Your task to perform on an android device: open app "Viber Messenger" Image 0: 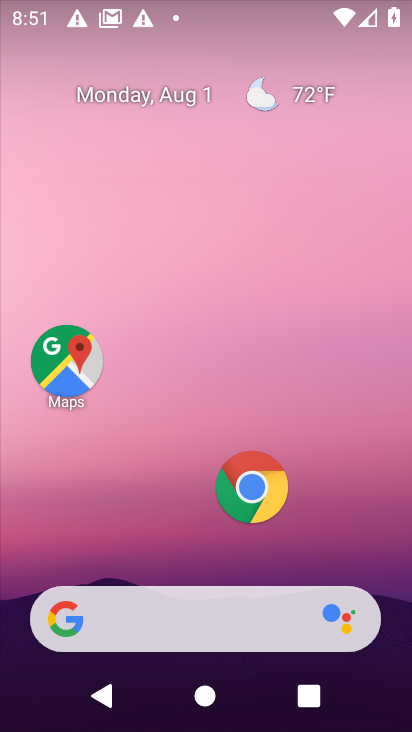
Step 0: drag from (166, 180) to (166, 69)
Your task to perform on an android device: open app "Viber Messenger" Image 1: 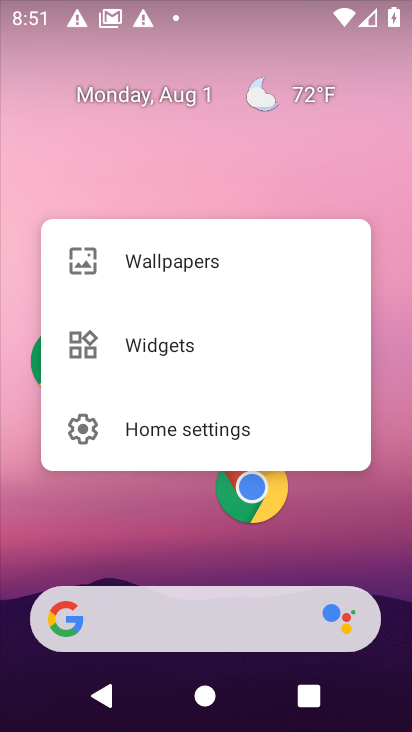
Step 1: drag from (176, 439) to (227, 95)
Your task to perform on an android device: open app "Viber Messenger" Image 2: 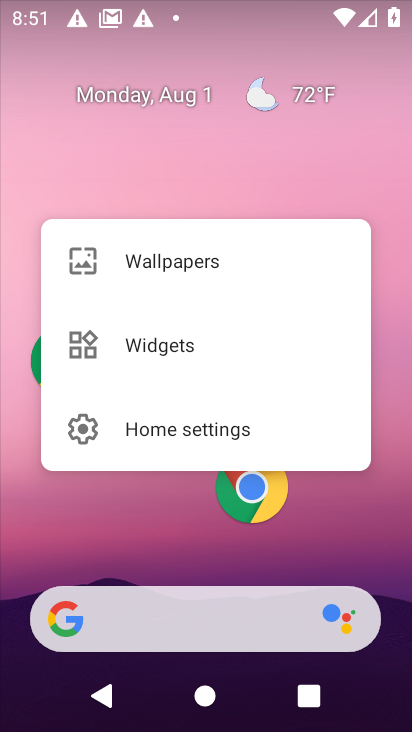
Step 2: click (177, 566)
Your task to perform on an android device: open app "Viber Messenger" Image 3: 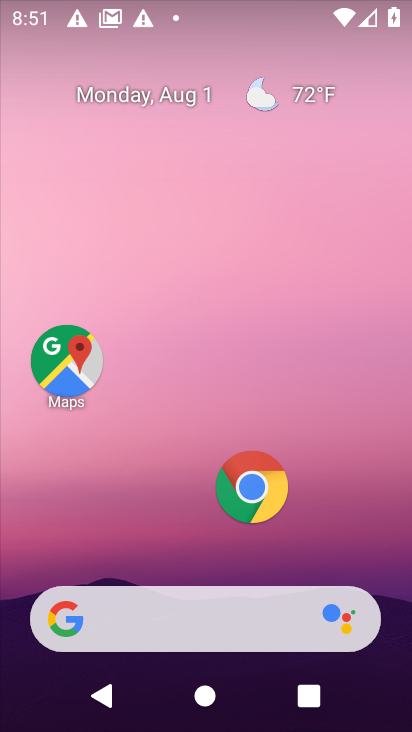
Step 3: drag from (174, 500) to (204, 74)
Your task to perform on an android device: open app "Viber Messenger" Image 4: 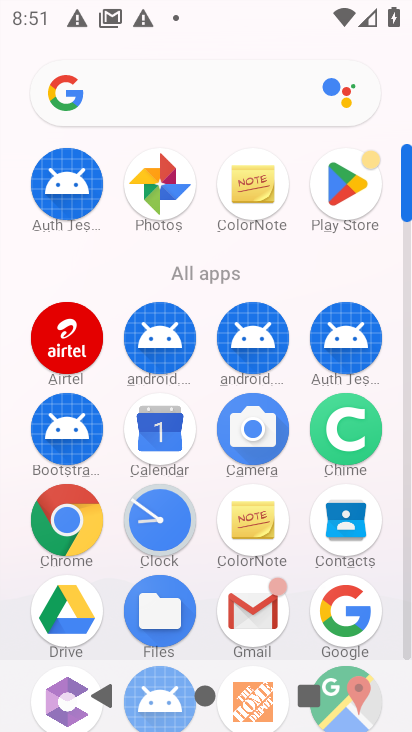
Step 4: click (345, 192)
Your task to perform on an android device: open app "Viber Messenger" Image 5: 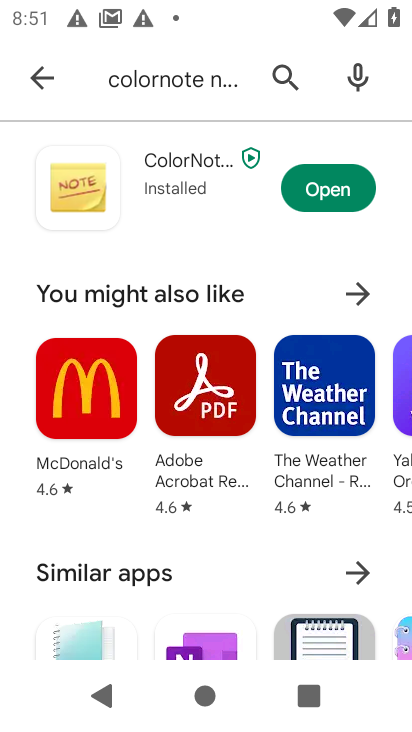
Step 5: click (45, 80)
Your task to perform on an android device: open app "Viber Messenger" Image 6: 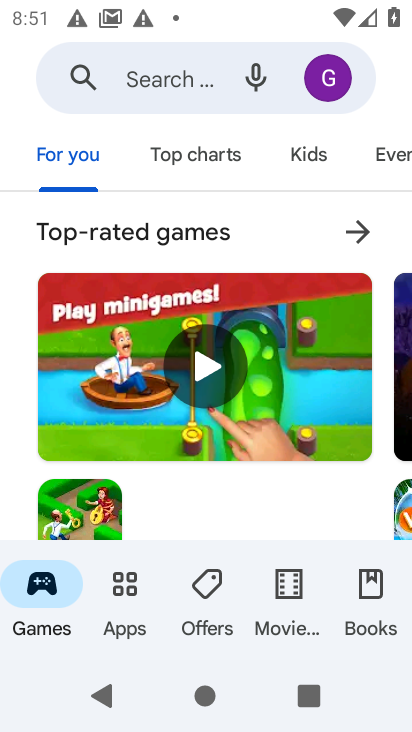
Step 6: click (185, 81)
Your task to perform on an android device: open app "Viber Messenger" Image 7: 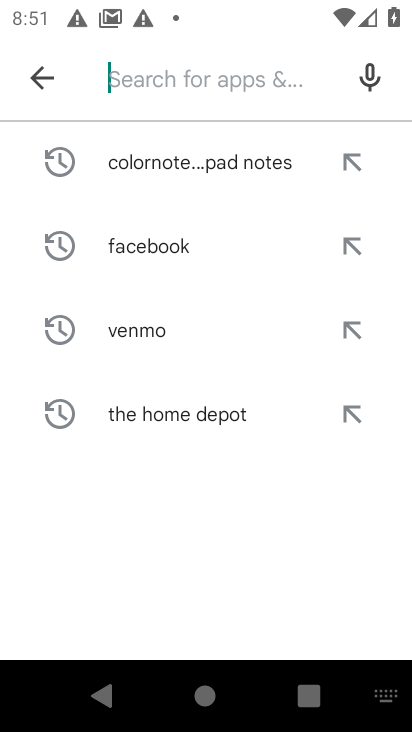
Step 7: type "Viber Messenger"
Your task to perform on an android device: open app "Viber Messenger" Image 8: 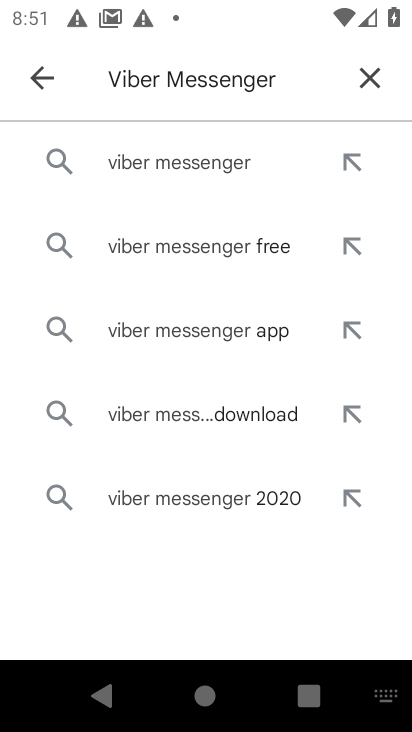
Step 8: click (168, 164)
Your task to perform on an android device: open app "Viber Messenger" Image 9: 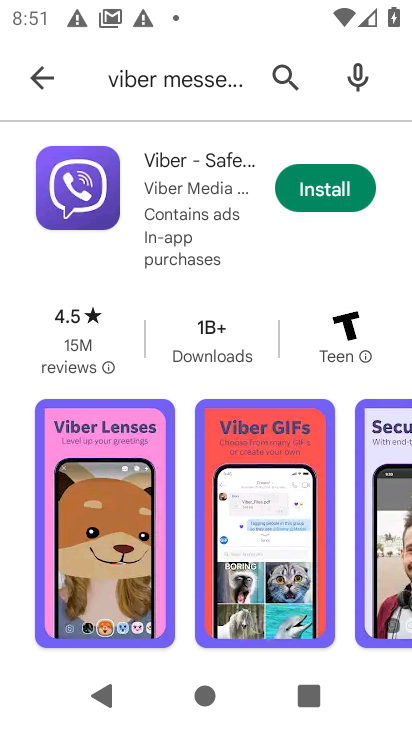
Step 9: click (322, 195)
Your task to perform on an android device: open app "Viber Messenger" Image 10: 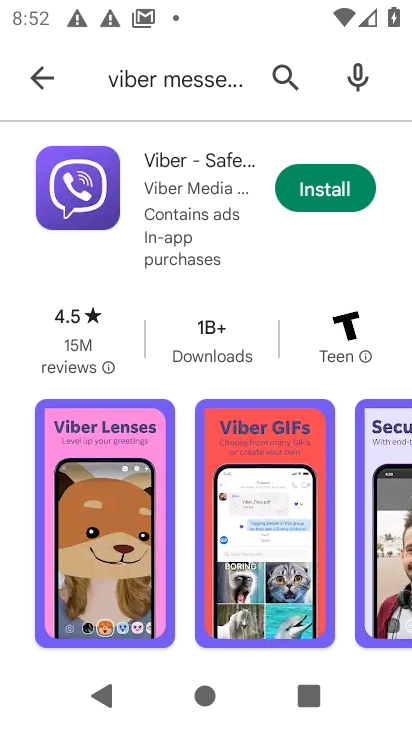
Step 10: task complete